Your task to perform on an android device: change alarm snooze length Image 0: 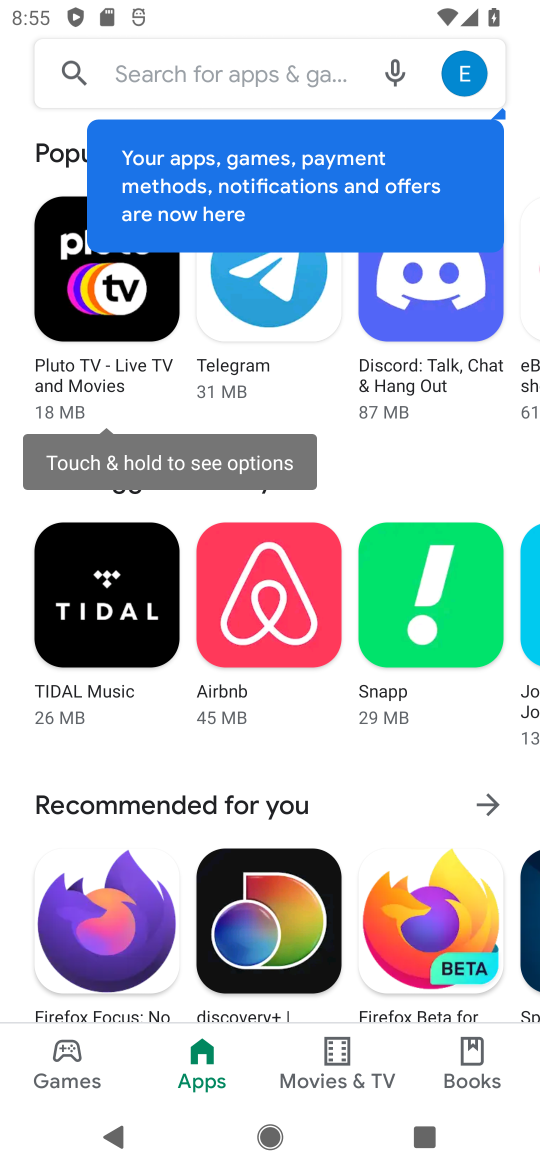
Step 0: press home button
Your task to perform on an android device: change alarm snooze length Image 1: 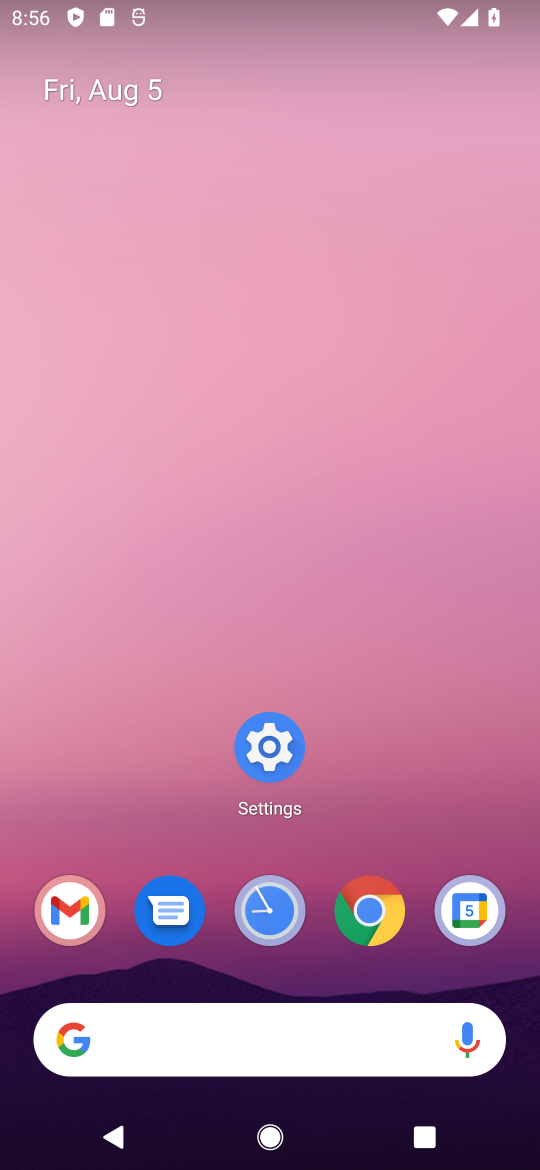
Step 1: click (270, 912)
Your task to perform on an android device: change alarm snooze length Image 2: 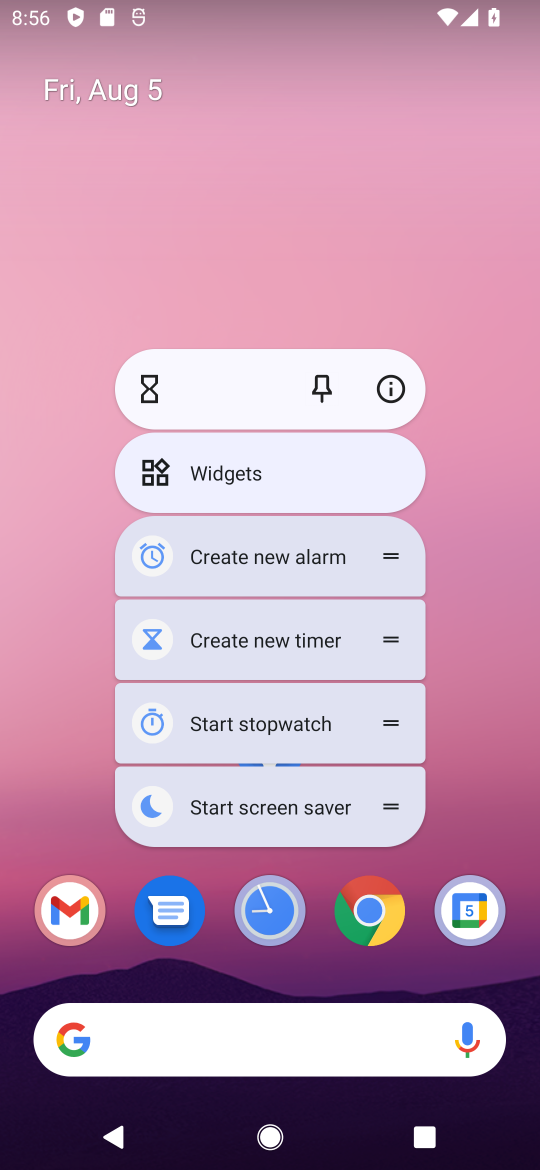
Step 2: click (270, 912)
Your task to perform on an android device: change alarm snooze length Image 3: 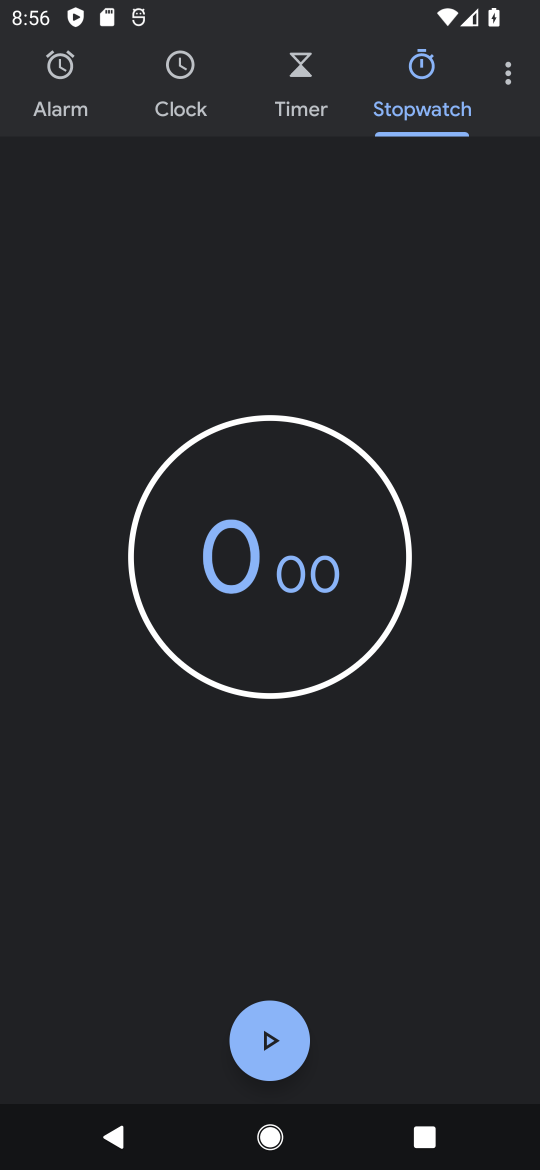
Step 3: click (508, 66)
Your task to perform on an android device: change alarm snooze length Image 4: 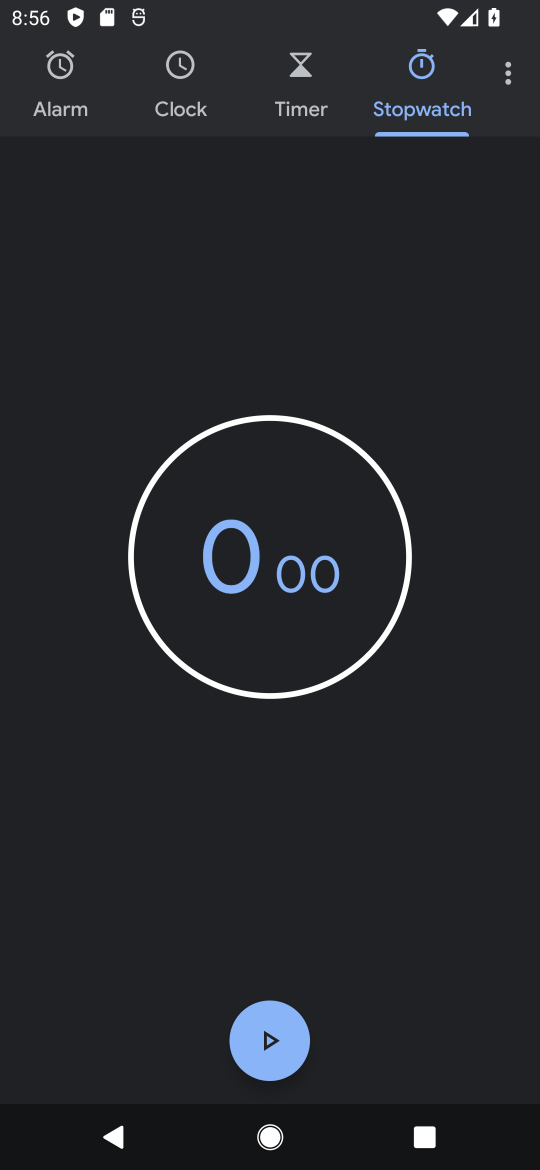
Step 4: click (517, 72)
Your task to perform on an android device: change alarm snooze length Image 5: 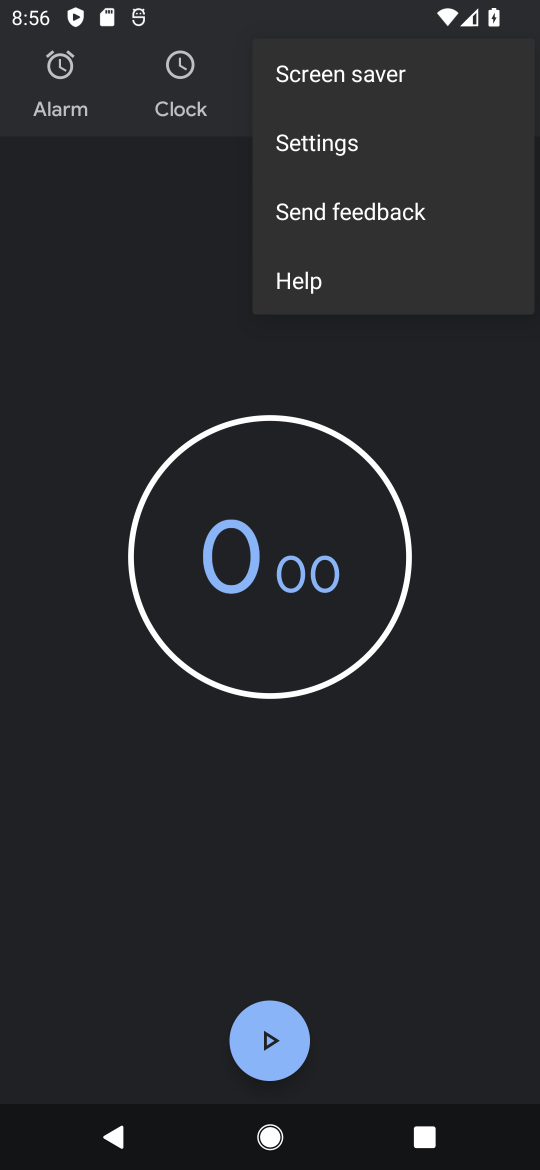
Step 5: click (376, 141)
Your task to perform on an android device: change alarm snooze length Image 6: 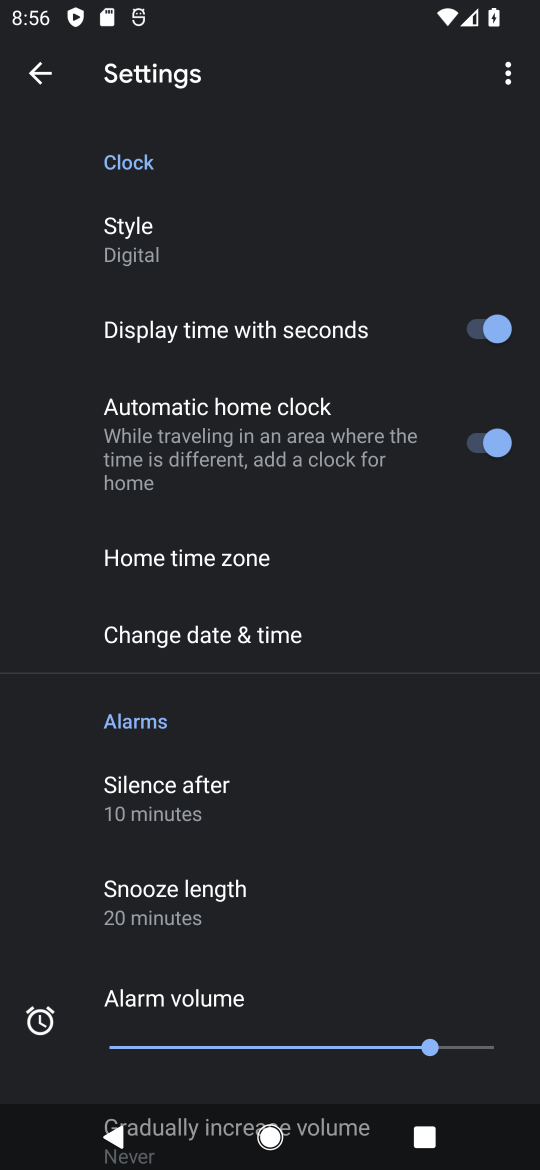
Step 6: click (209, 908)
Your task to perform on an android device: change alarm snooze length Image 7: 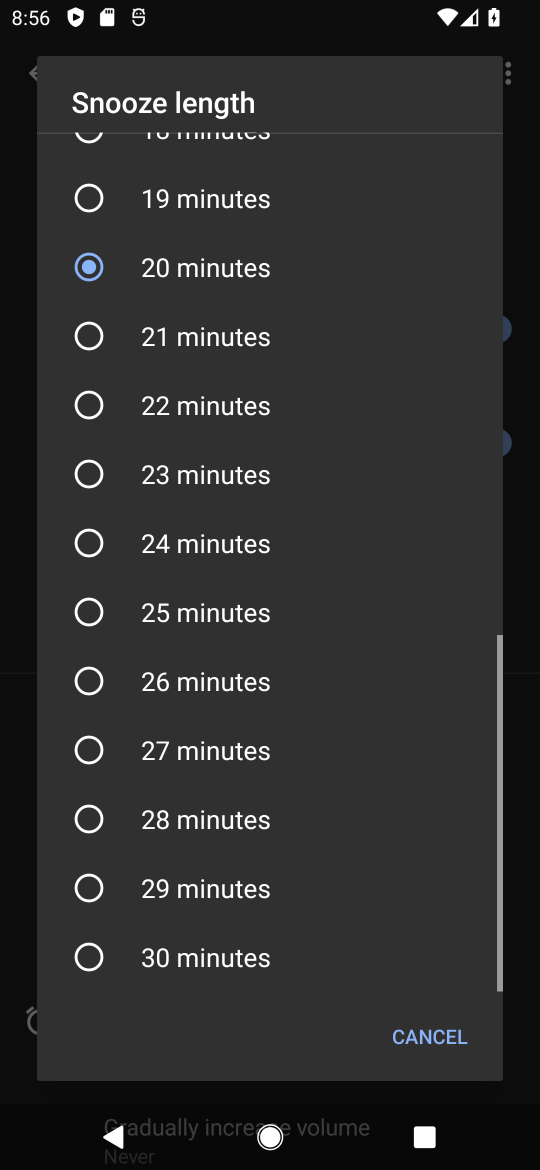
Step 7: drag from (197, 434) to (130, 989)
Your task to perform on an android device: change alarm snooze length Image 8: 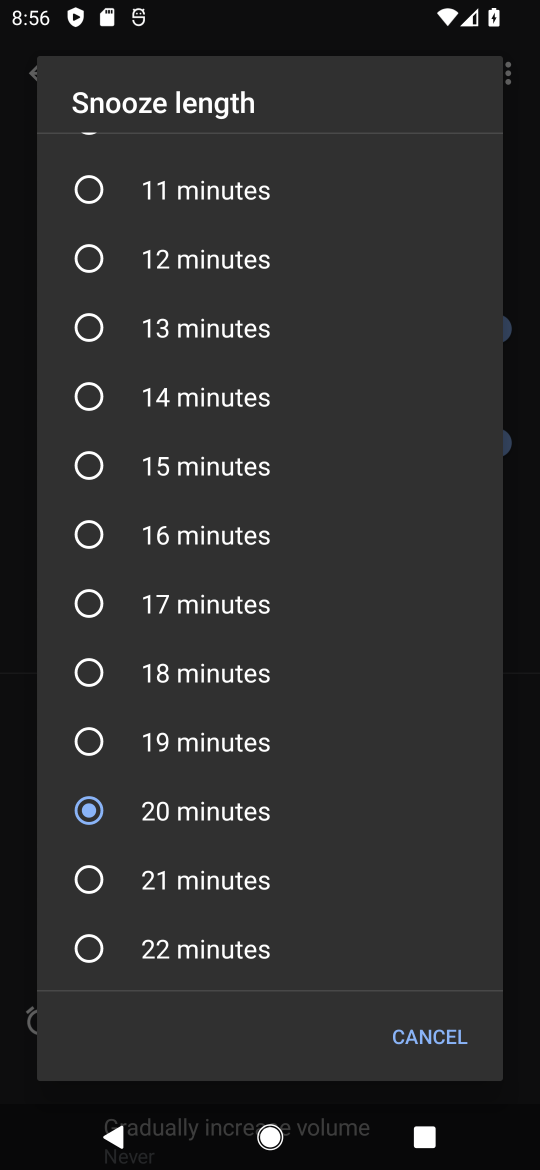
Step 8: click (89, 463)
Your task to perform on an android device: change alarm snooze length Image 9: 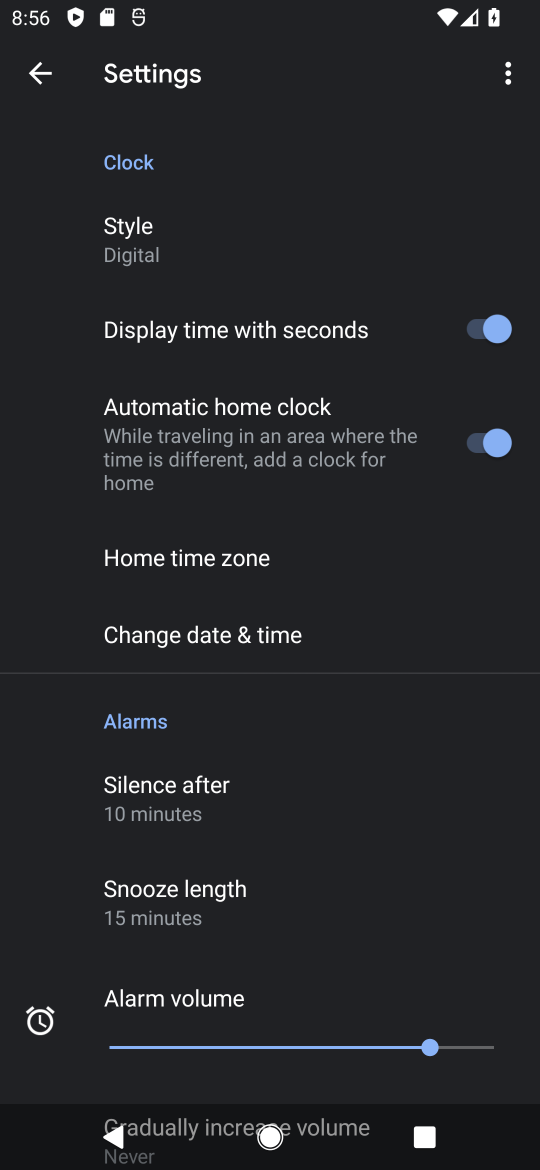
Step 9: task complete